Your task to perform on an android device: toggle show notifications on the lock screen Image 0: 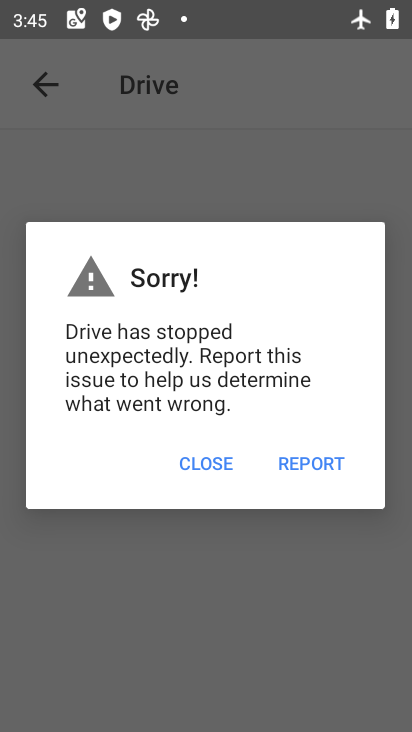
Step 0: press home button
Your task to perform on an android device: toggle show notifications on the lock screen Image 1: 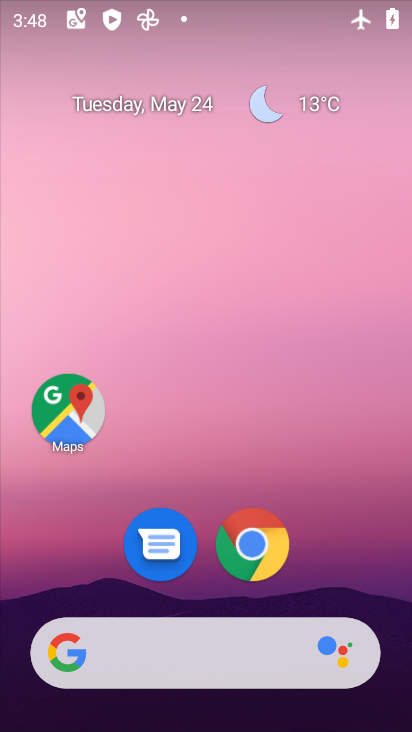
Step 1: drag from (326, 532) to (12, 328)
Your task to perform on an android device: toggle show notifications on the lock screen Image 2: 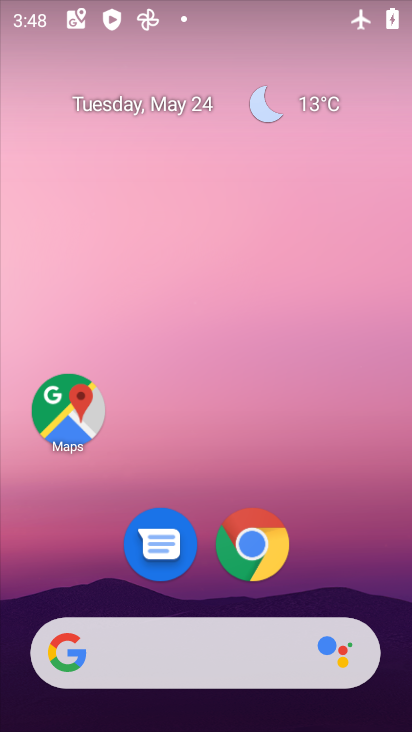
Step 2: drag from (380, 570) to (243, 13)
Your task to perform on an android device: toggle show notifications on the lock screen Image 3: 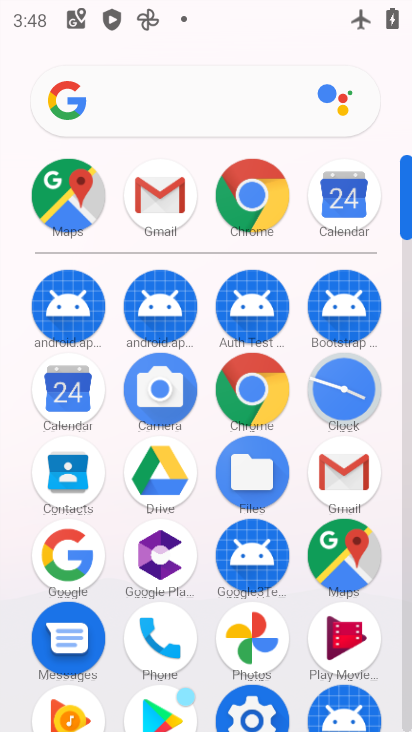
Step 3: click (251, 699)
Your task to perform on an android device: toggle show notifications on the lock screen Image 4: 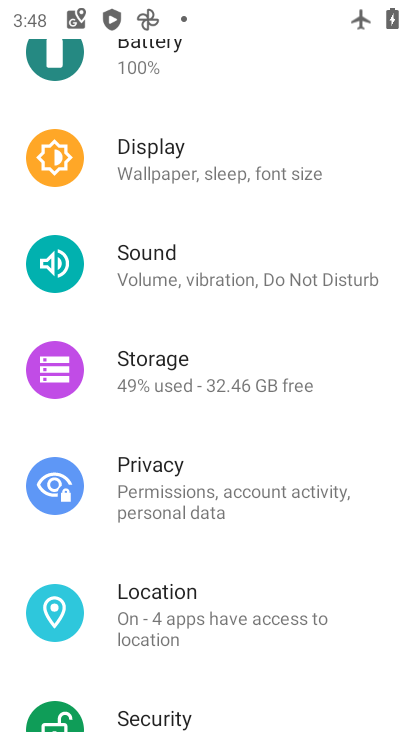
Step 4: drag from (124, 298) to (256, 700)
Your task to perform on an android device: toggle show notifications on the lock screen Image 5: 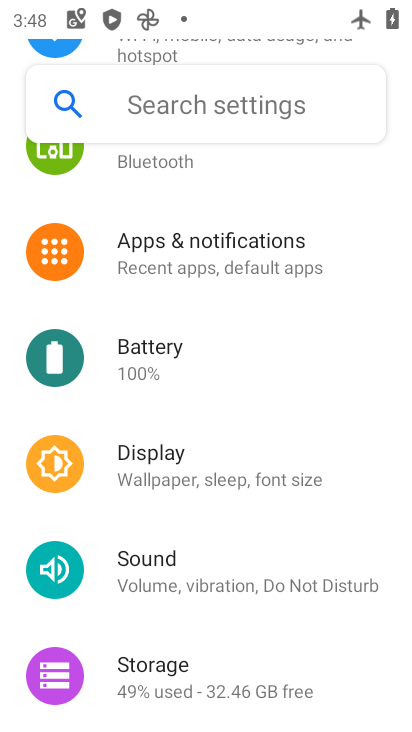
Step 5: click (212, 251)
Your task to perform on an android device: toggle show notifications on the lock screen Image 6: 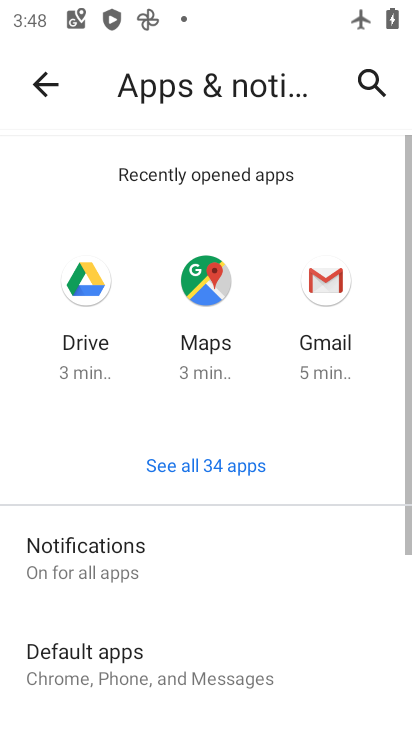
Step 6: click (121, 555)
Your task to perform on an android device: toggle show notifications on the lock screen Image 7: 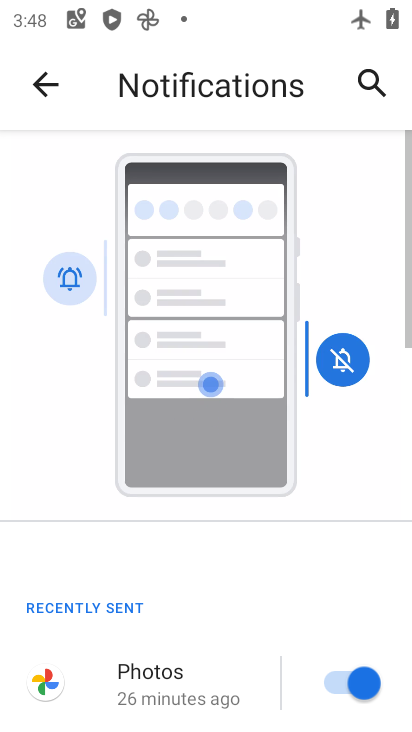
Step 7: drag from (148, 591) to (220, 59)
Your task to perform on an android device: toggle show notifications on the lock screen Image 8: 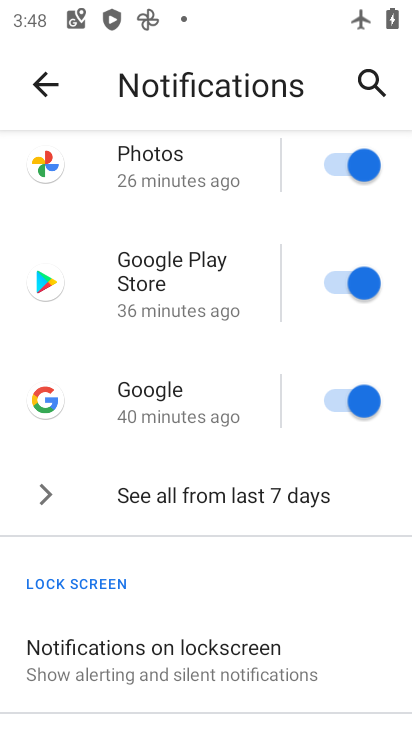
Step 8: drag from (223, 584) to (190, 170)
Your task to perform on an android device: toggle show notifications on the lock screen Image 9: 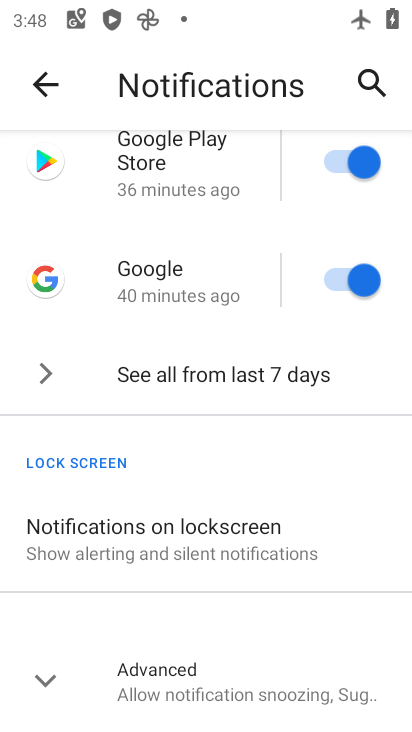
Step 9: click (164, 531)
Your task to perform on an android device: toggle show notifications on the lock screen Image 10: 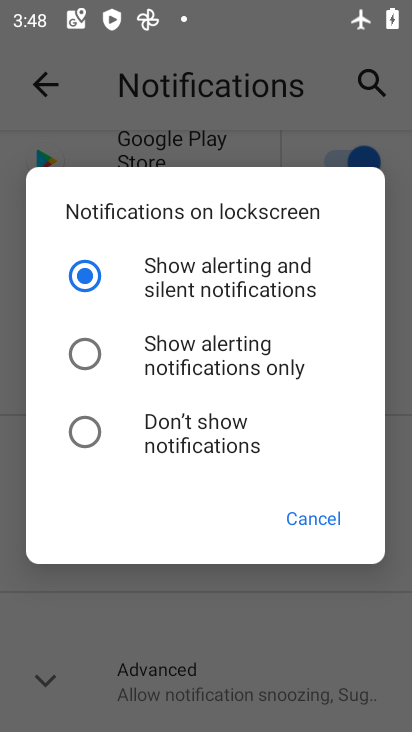
Step 10: click (115, 351)
Your task to perform on an android device: toggle show notifications on the lock screen Image 11: 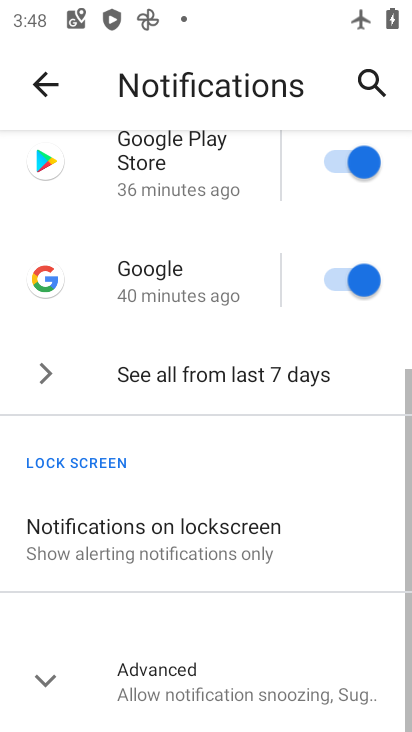
Step 11: task complete